Your task to perform on an android device: turn off location history Image 0: 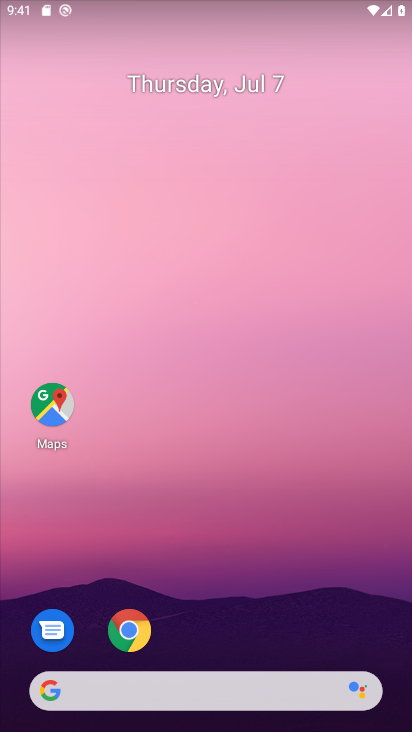
Step 0: drag from (220, 638) to (242, 55)
Your task to perform on an android device: turn off location history Image 1: 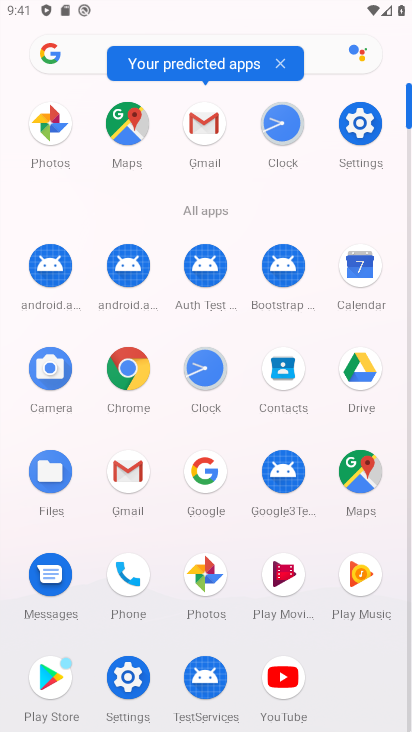
Step 1: click (356, 119)
Your task to perform on an android device: turn off location history Image 2: 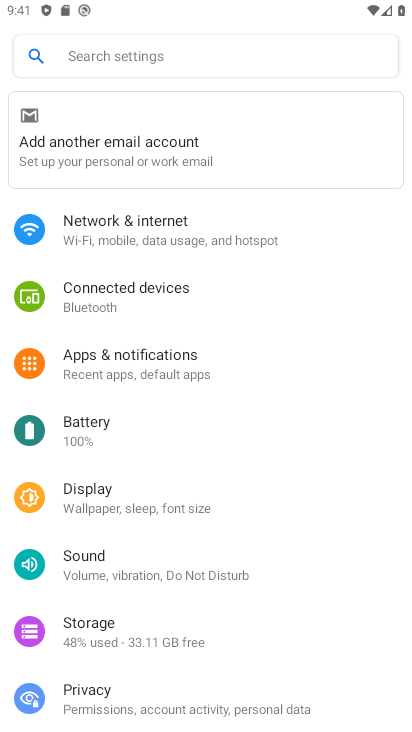
Step 2: drag from (157, 697) to (167, 222)
Your task to perform on an android device: turn off location history Image 3: 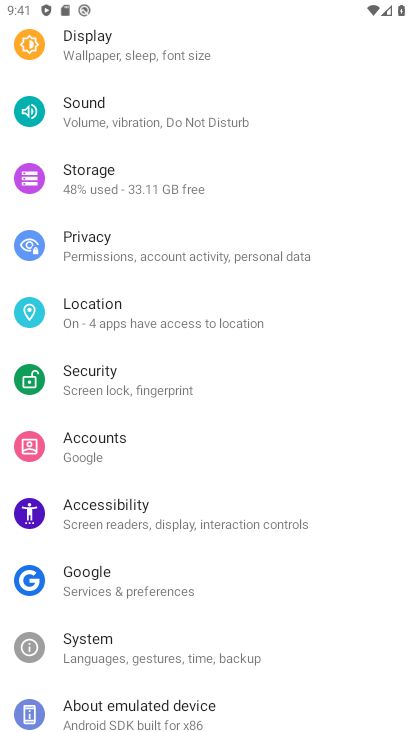
Step 3: click (125, 307)
Your task to perform on an android device: turn off location history Image 4: 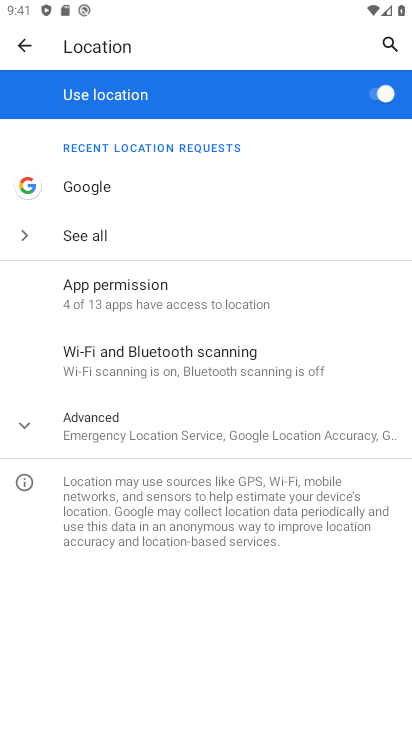
Step 4: click (70, 429)
Your task to perform on an android device: turn off location history Image 5: 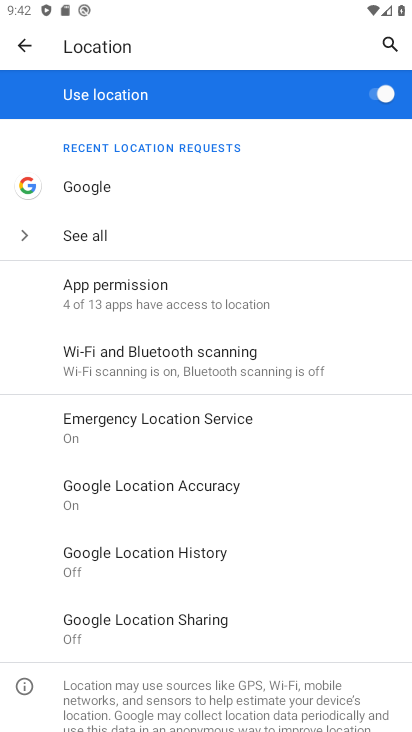
Step 5: click (128, 555)
Your task to perform on an android device: turn off location history Image 6: 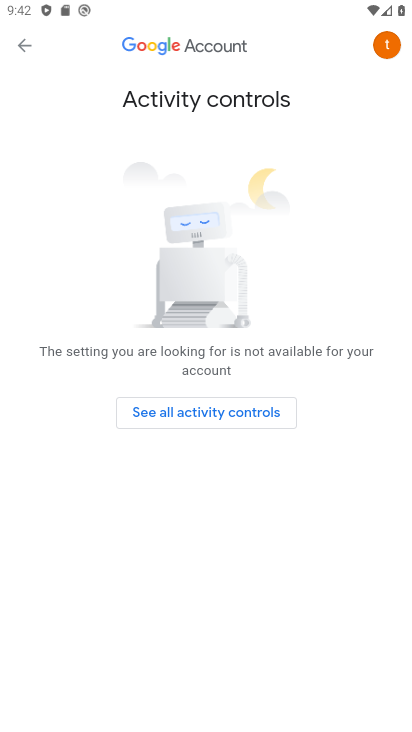
Step 6: click (19, 32)
Your task to perform on an android device: turn off location history Image 7: 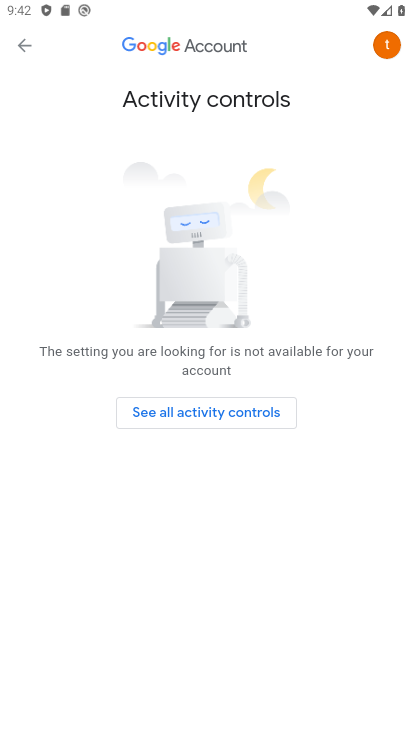
Step 7: click (25, 45)
Your task to perform on an android device: turn off location history Image 8: 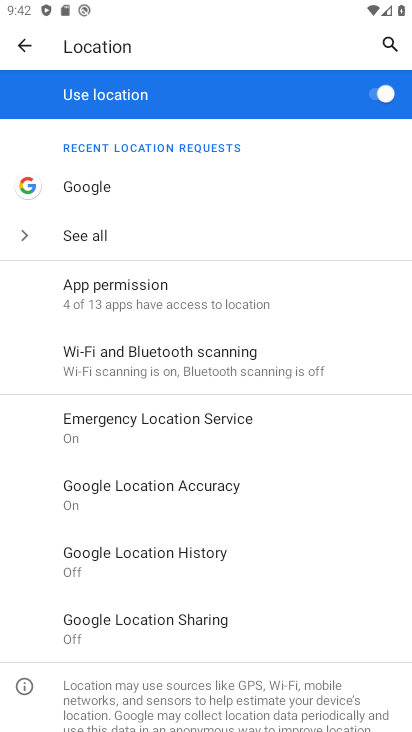
Step 8: click (139, 563)
Your task to perform on an android device: turn off location history Image 9: 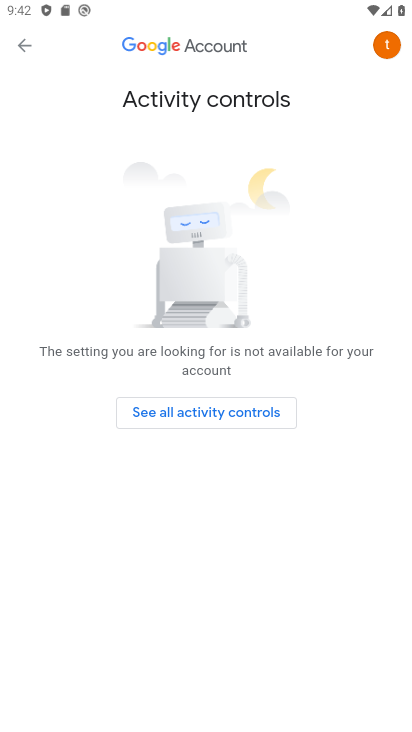
Step 9: task complete